Your task to perform on an android device: change the clock display to analog Image 0: 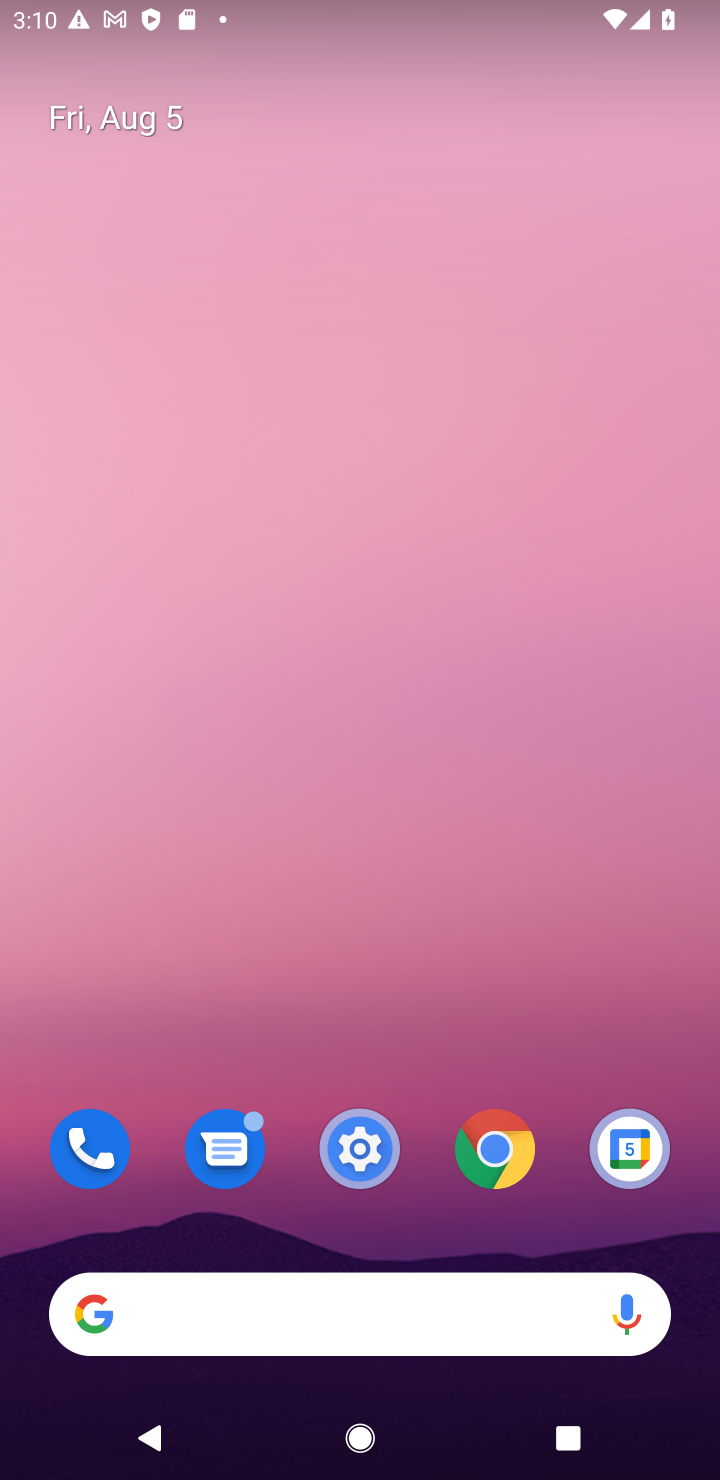
Step 0: drag from (297, 1136) to (450, 67)
Your task to perform on an android device: change the clock display to analog Image 1: 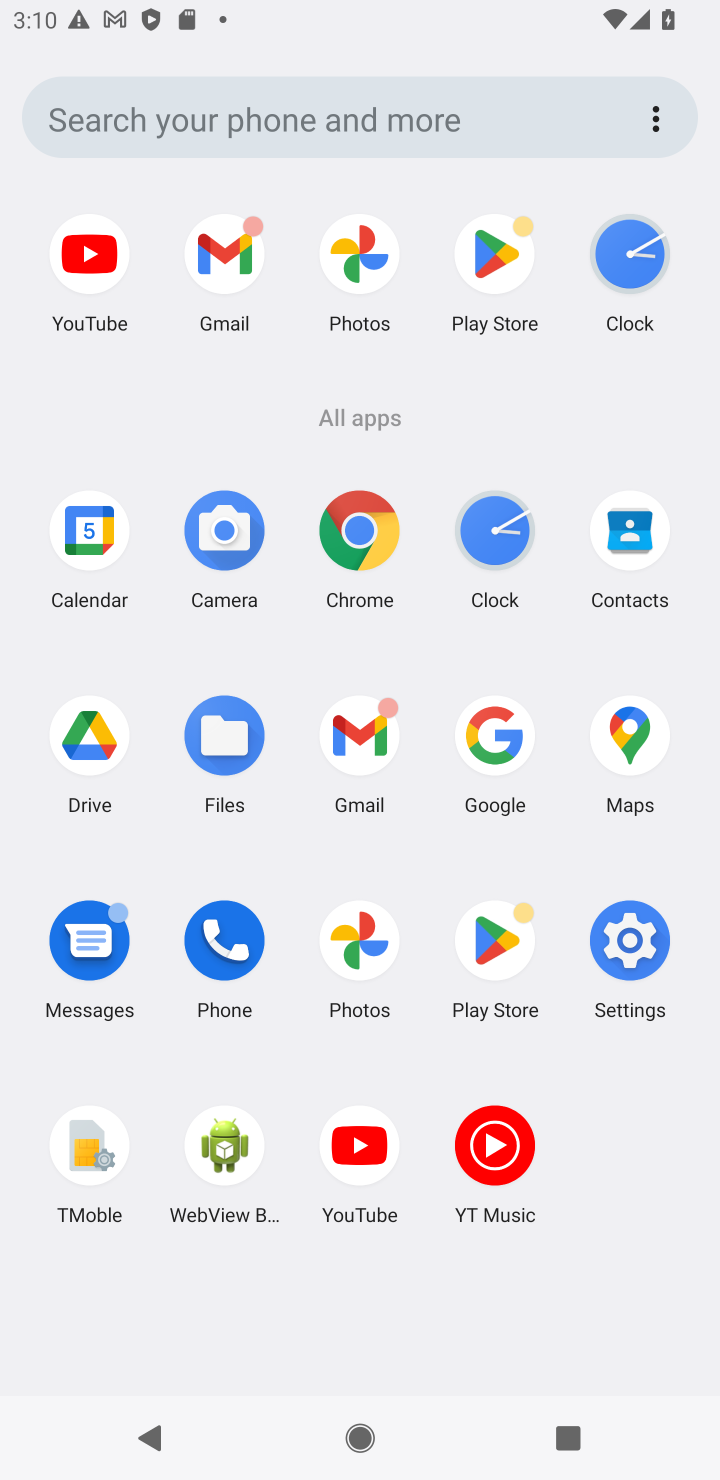
Step 1: click (493, 521)
Your task to perform on an android device: change the clock display to analog Image 2: 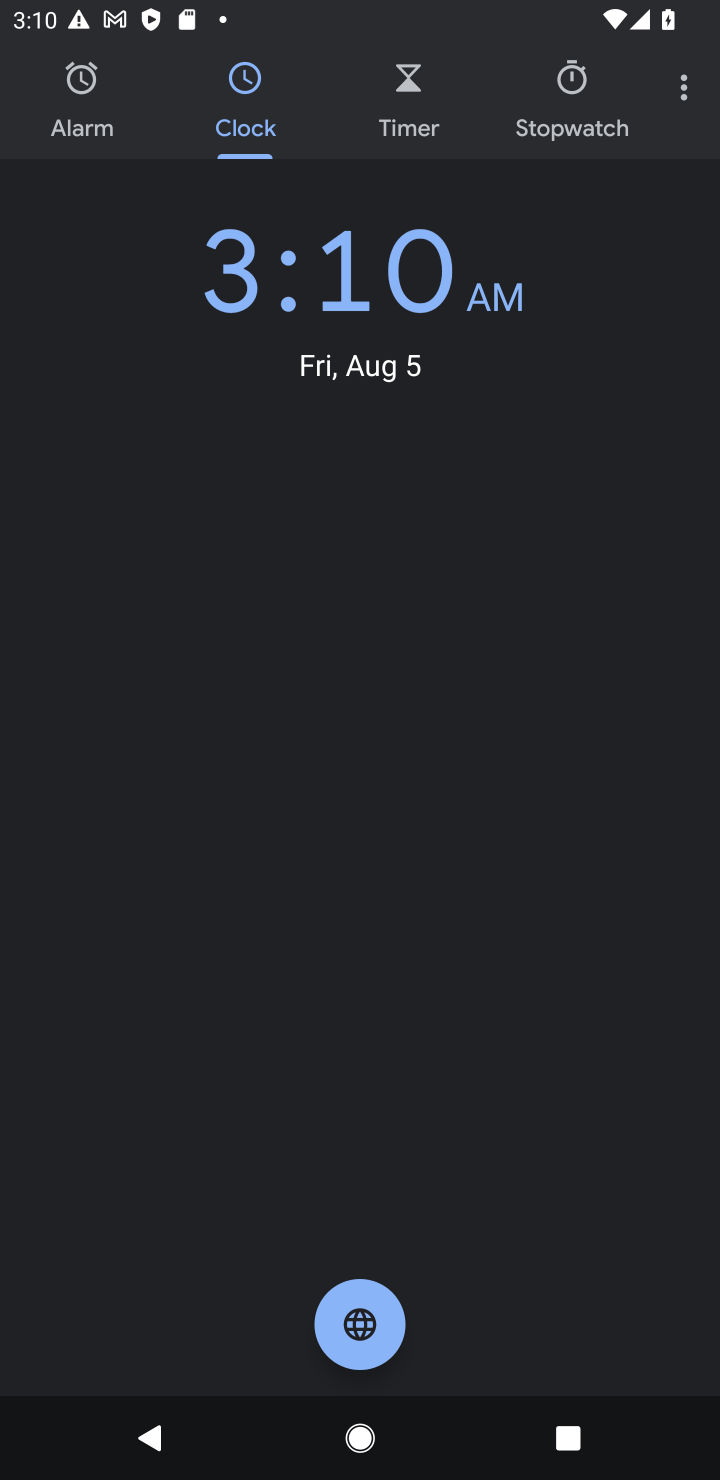
Step 2: click (680, 93)
Your task to perform on an android device: change the clock display to analog Image 3: 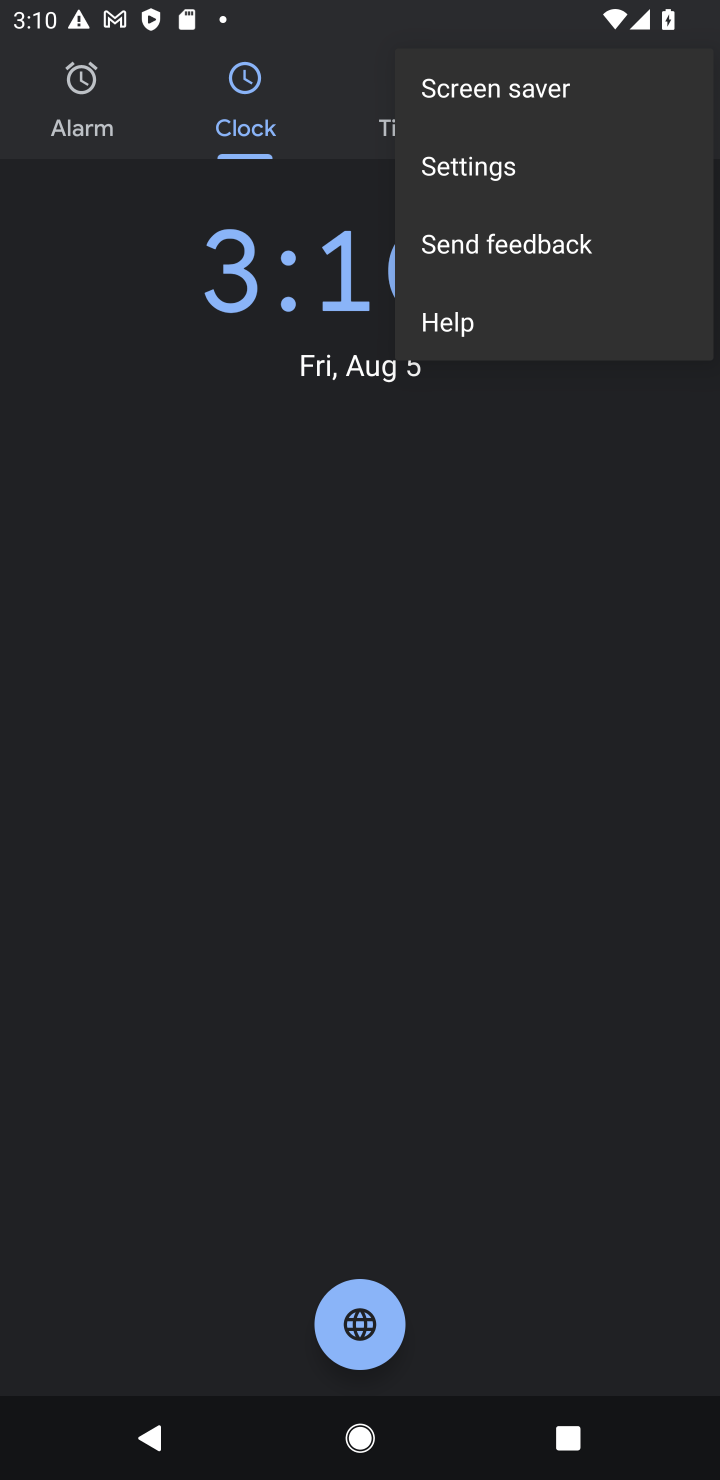
Step 3: click (489, 164)
Your task to perform on an android device: change the clock display to analog Image 4: 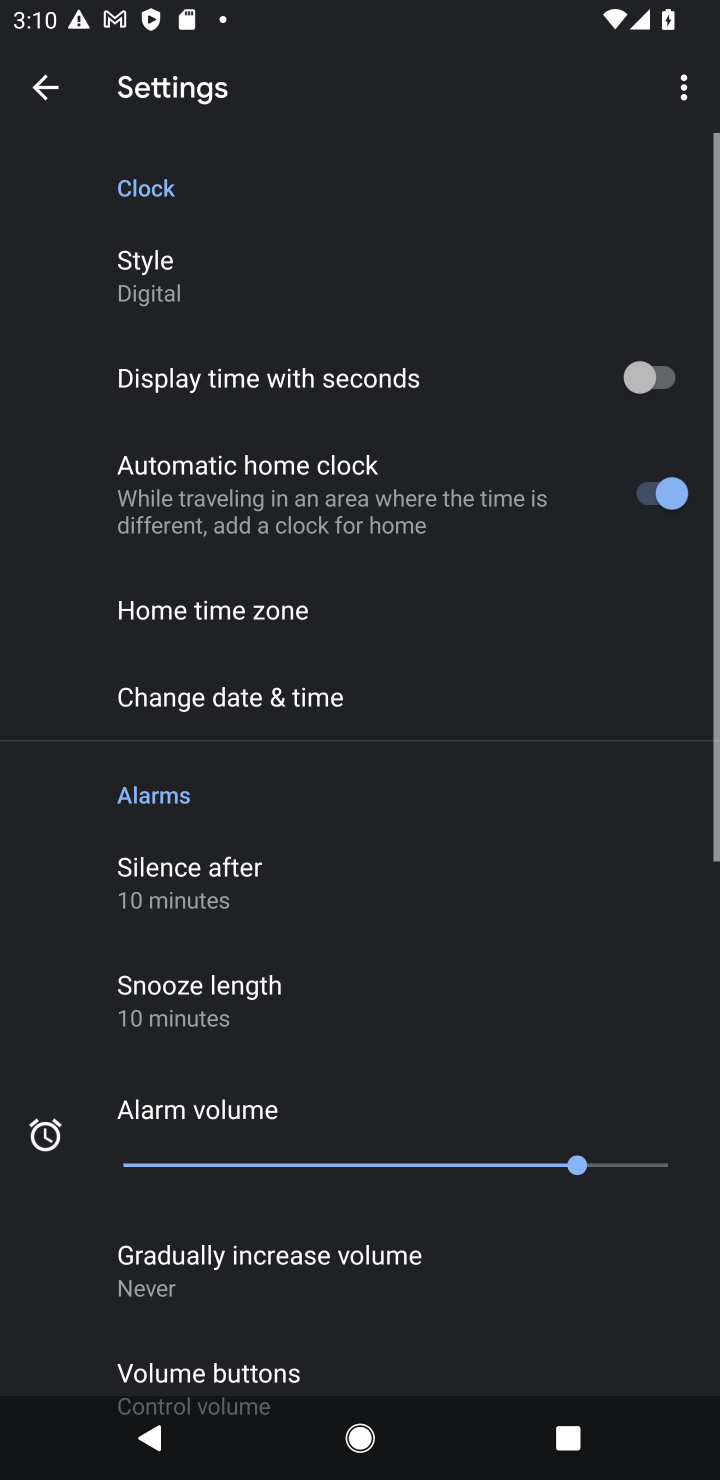
Step 4: click (223, 248)
Your task to perform on an android device: change the clock display to analog Image 5: 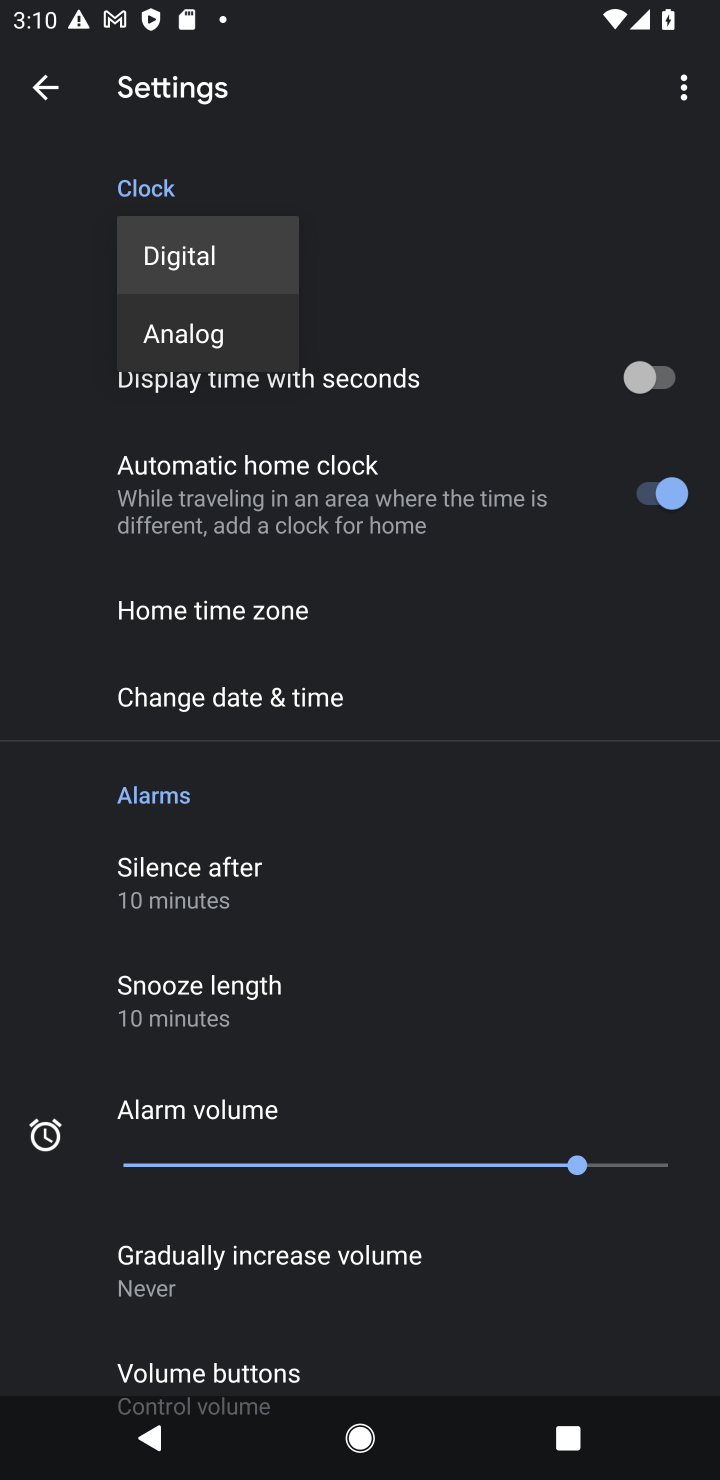
Step 5: click (213, 323)
Your task to perform on an android device: change the clock display to analog Image 6: 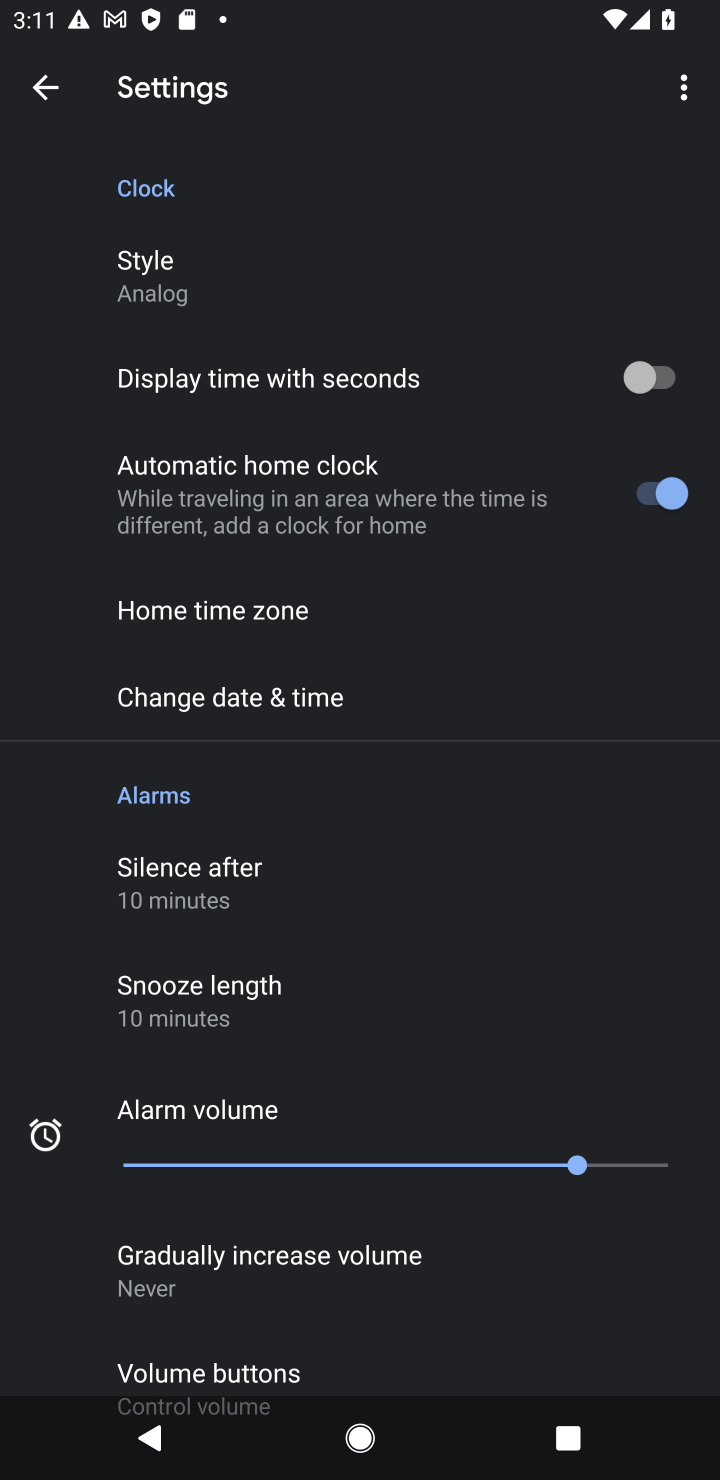
Step 6: task complete